Your task to perform on an android device: Go to Android settings Image 0: 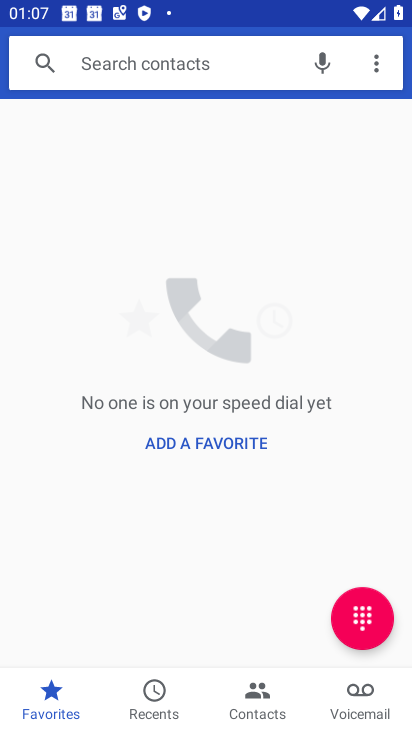
Step 0: press home button
Your task to perform on an android device: Go to Android settings Image 1: 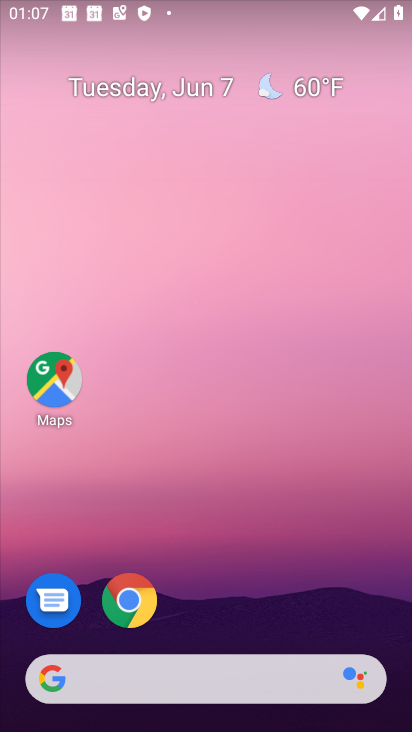
Step 1: drag from (247, 730) to (209, 107)
Your task to perform on an android device: Go to Android settings Image 2: 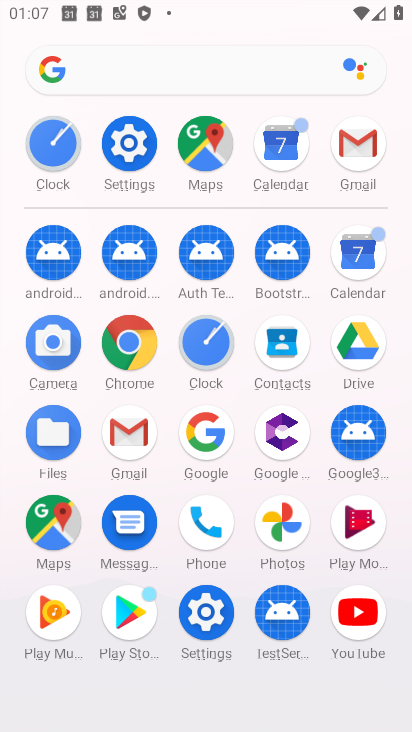
Step 2: click (121, 141)
Your task to perform on an android device: Go to Android settings Image 3: 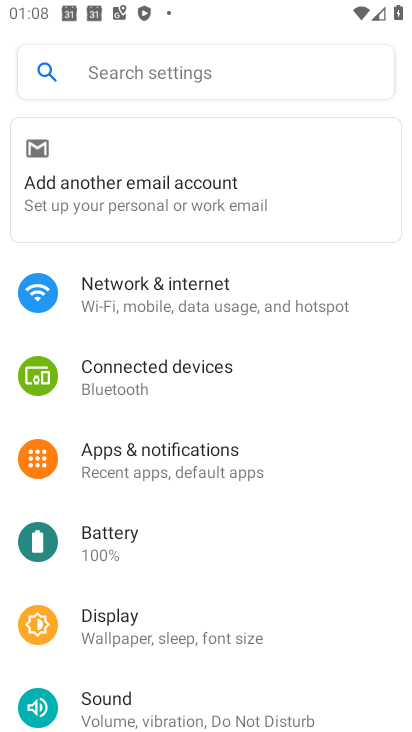
Step 3: task complete